Your task to perform on an android device: check out phone information Image 0: 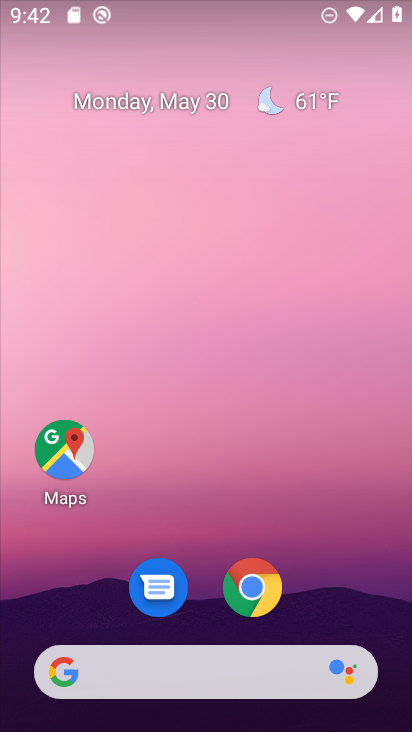
Step 0: drag from (192, 633) to (207, 3)
Your task to perform on an android device: check out phone information Image 1: 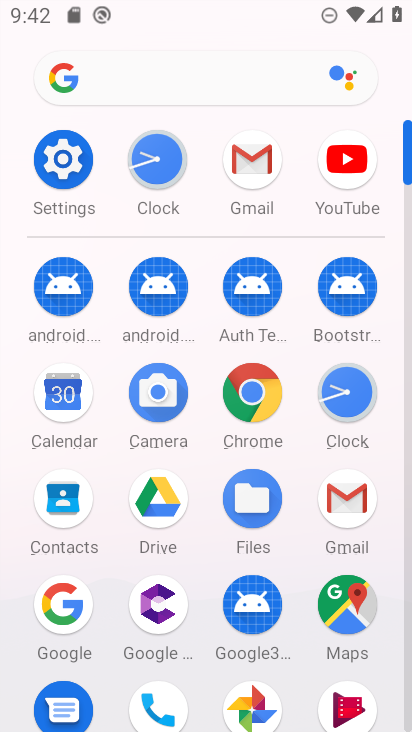
Step 1: click (79, 157)
Your task to perform on an android device: check out phone information Image 2: 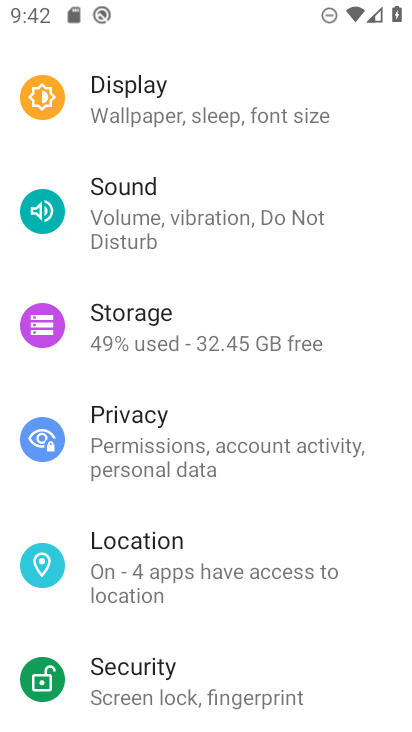
Step 2: drag from (183, 522) to (164, 1)
Your task to perform on an android device: check out phone information Image 3: 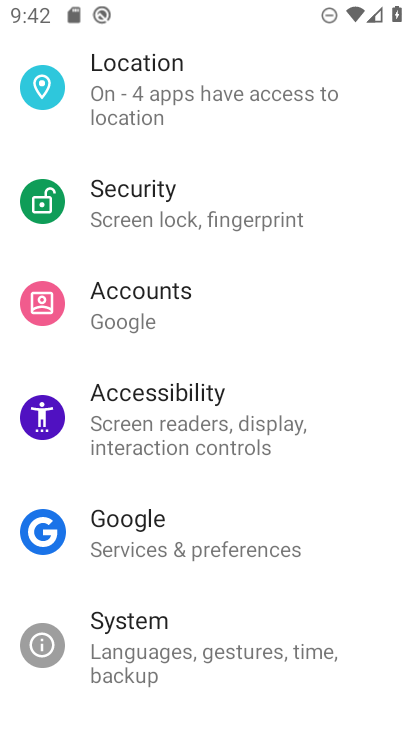
Step 3: click (154, 664)
Your task to perform on an android device: check out phone information Image 4: 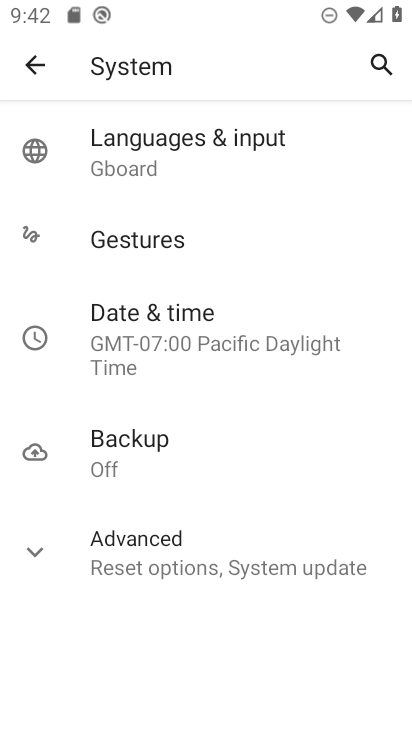
Step 4: drag from (154, 664) to (102, 219)
Your task to perform on an android device: check out phone information Image 5: 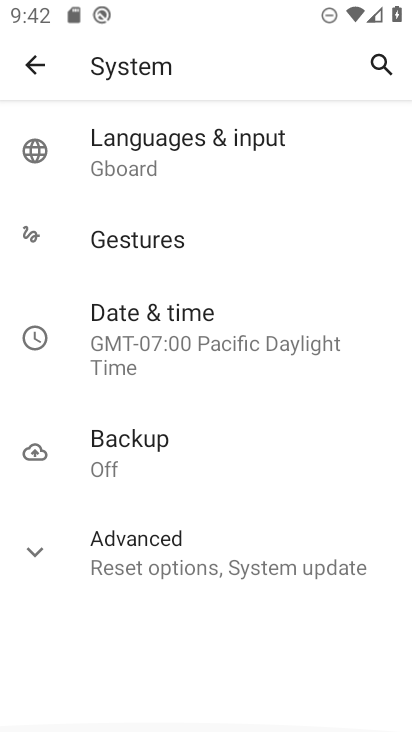
Step 5: click (28, 62)
Your task to perform on an android device: check out phone information Image 6: 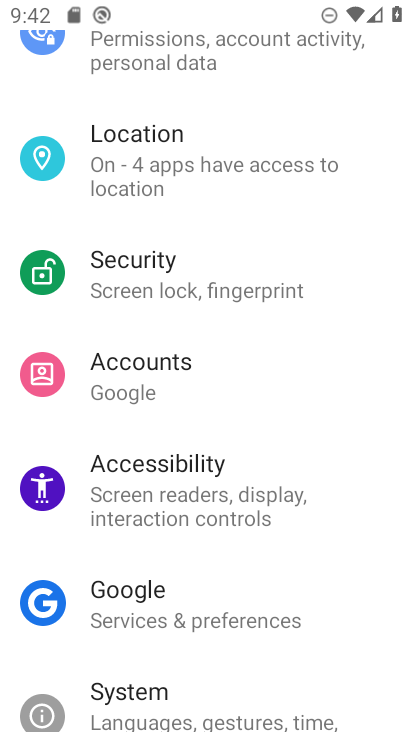
Step 6: drag from (150, 563) to (147, 4)
Your task to perform on an android device: check out phone information Image 7: 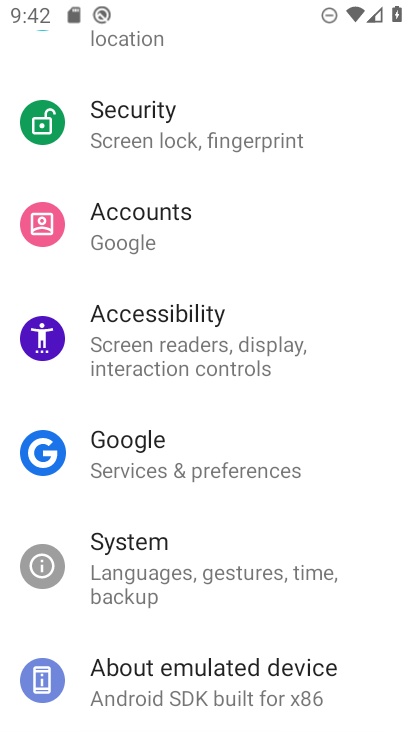
Step 7: click (117, 684)
Your task to perform on an android device: check out phone information Image 8: 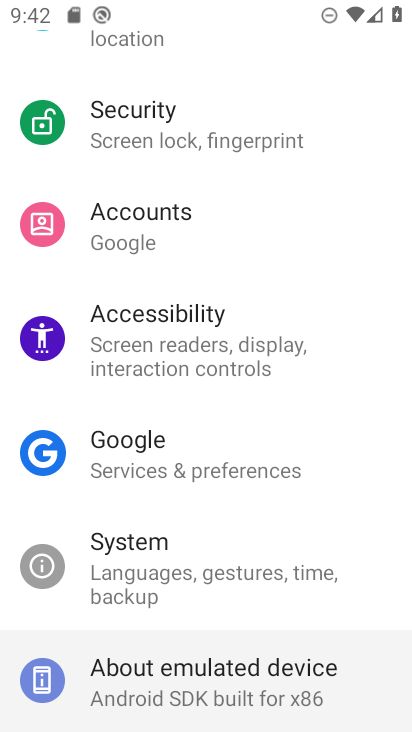
Step 8: task complete